Your task to perform on an android device: Search for the best rated kitchen reno kits on Lowes.com Image 0: 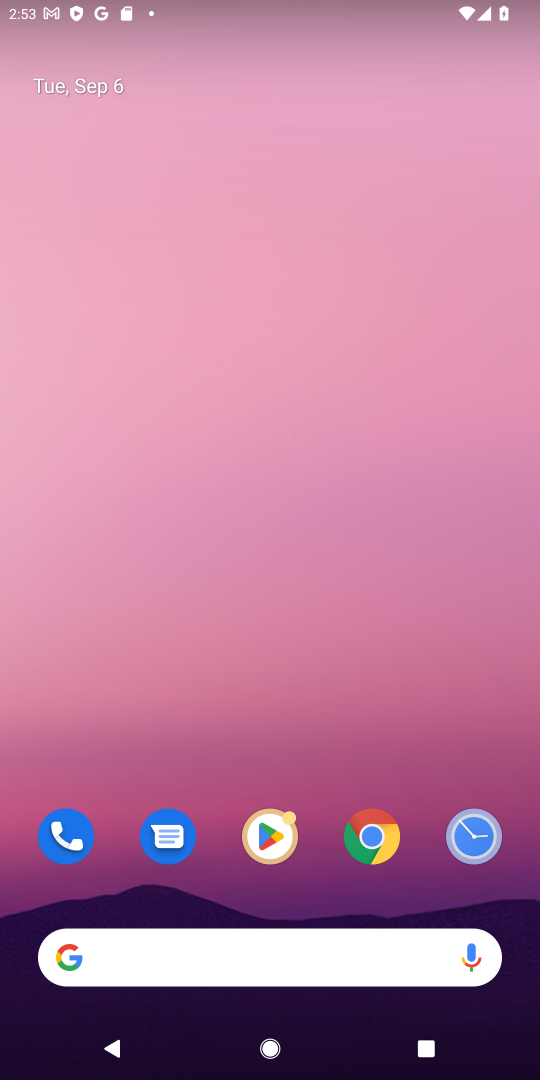
Step 0: click (263, 965)
Your task to perform on an android device: Search for the best rated kitchen reno kits on Lowes.com Image 1: 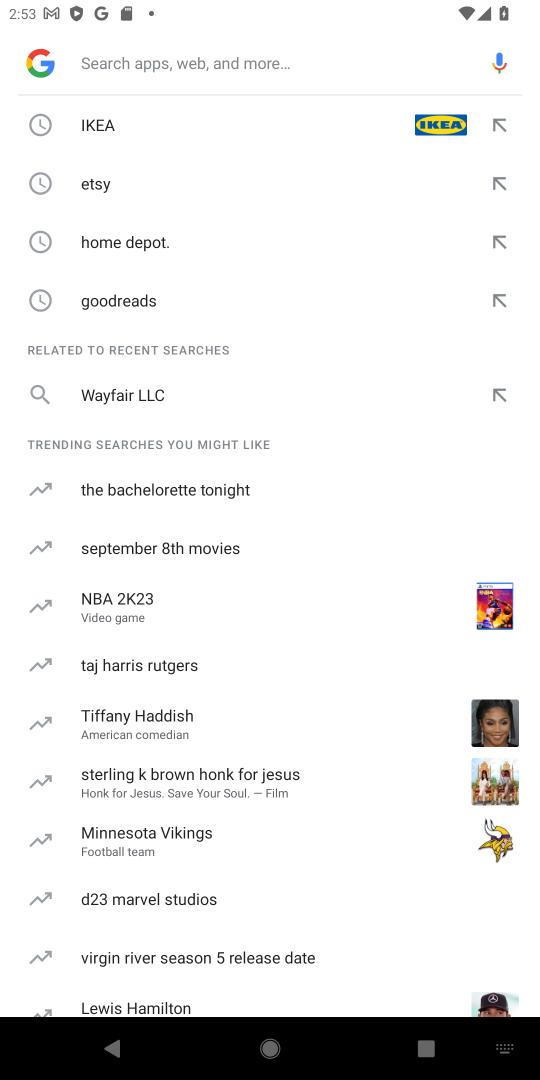
Step 1: type "lowes.com"
Your task to perform on an android device: Search for the best rated kitchen reno kits on Lowes.com Image 2: 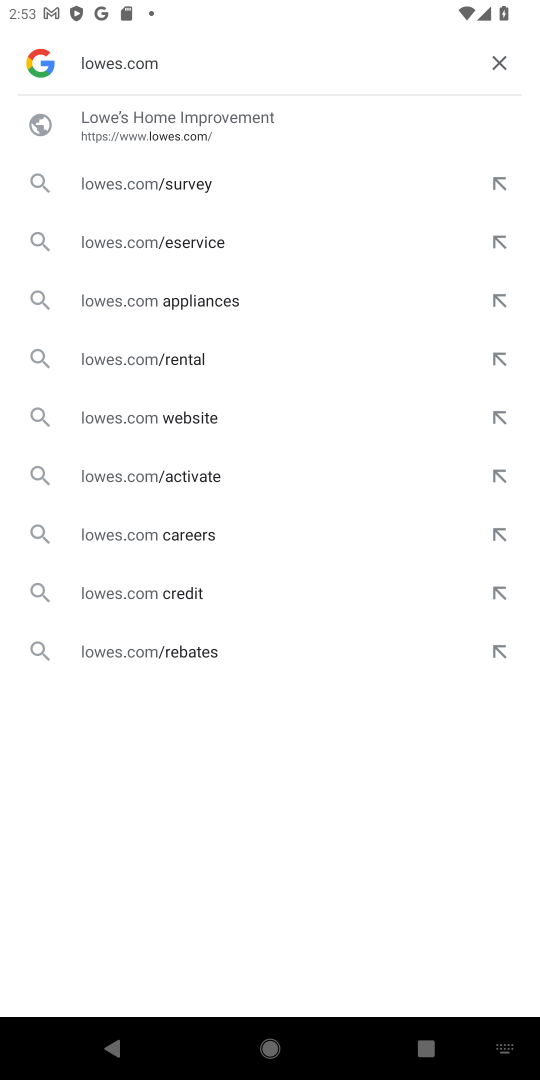
Step 2: click (123, 105)
Your task to perform on an android device: Search for the best rated kitchen reno kits on Lowes.com Image 3: 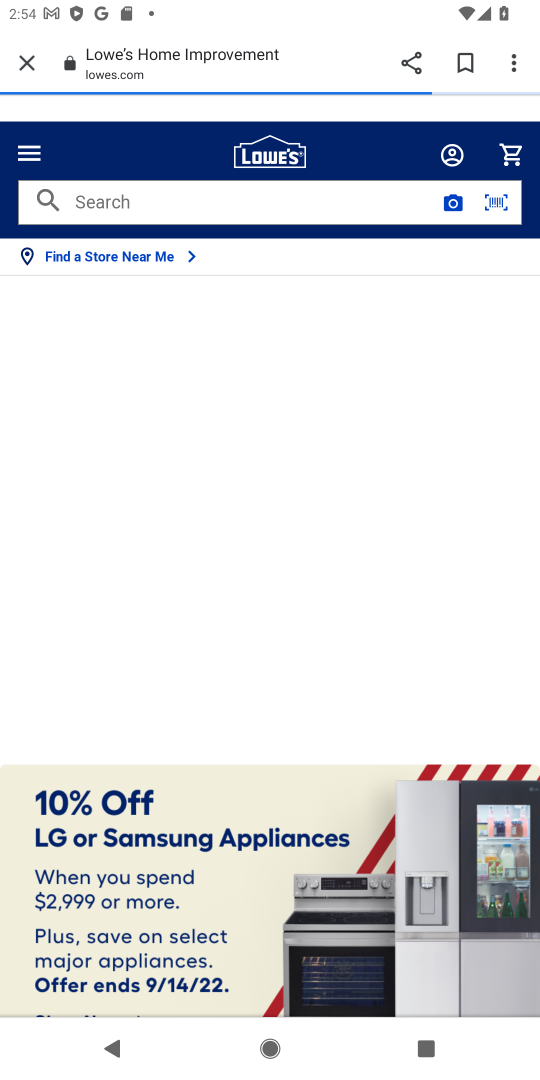
Step 3: click (112, 204)
Your task to perform on an android device: Search for the best rated kitchen reno kits on Lowes.com Image 4: 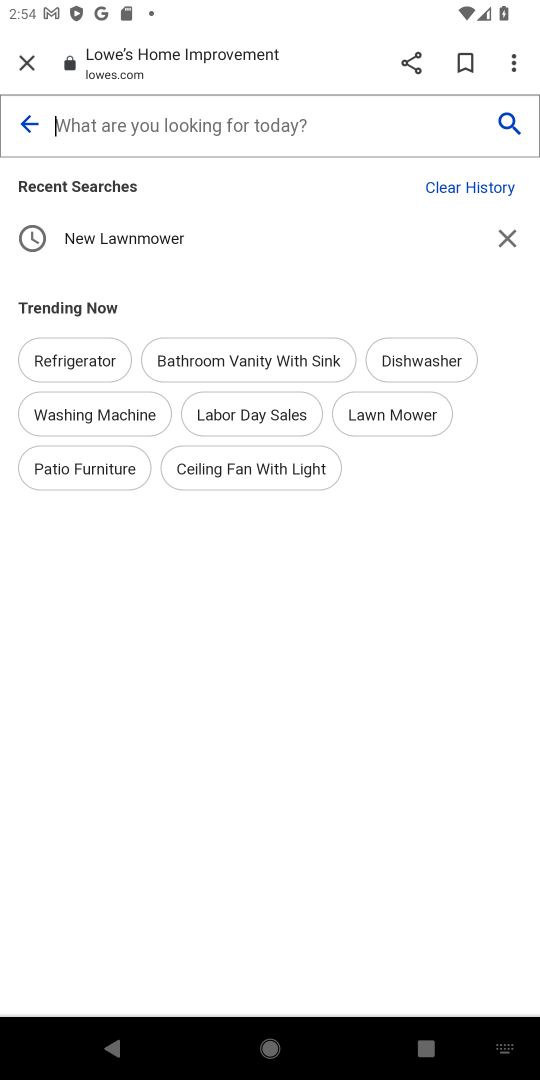
Step 4: type "best rated kitchen reno kits"
Your task to perform on an android device: Search for the best rated kitchen reno kits on Lowes.com Image 5: 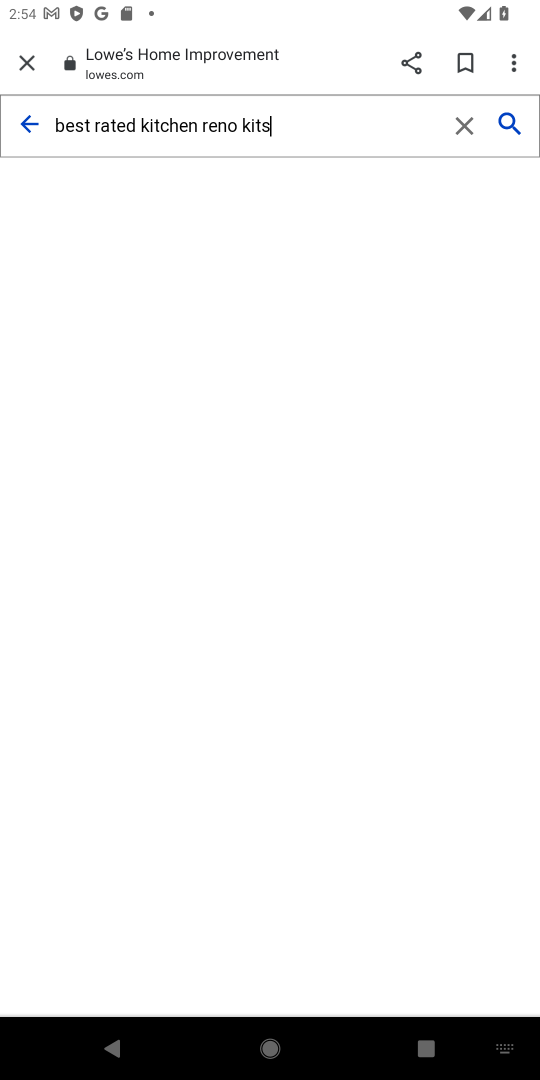
Step 5: click (509, 117)
Your task to perform on an android device: Search for the best rated kitchen reno kits on Lowes.com Image 6: 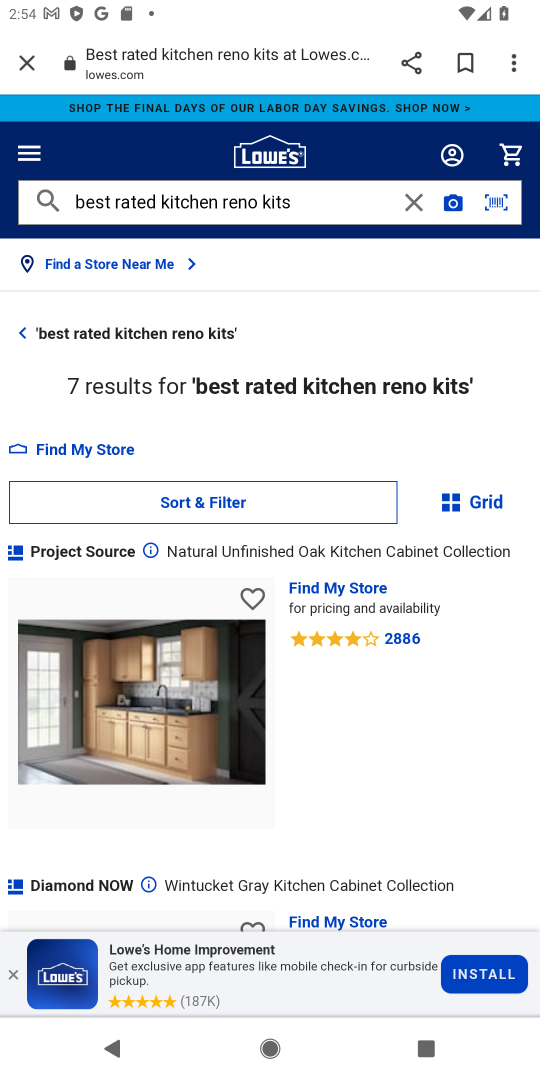
Step 6: task complete